Your task to perform on an android device: Open CNN.com Image 0: 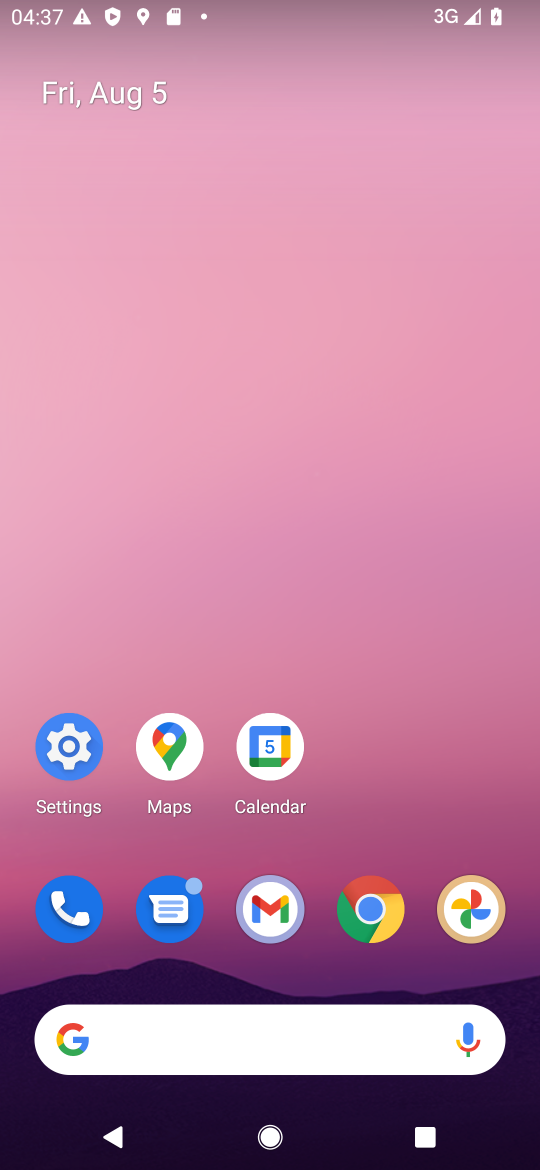
Step 0: click (369, 905)
Your task to perform on an android device: Open CNN.com Image 1: 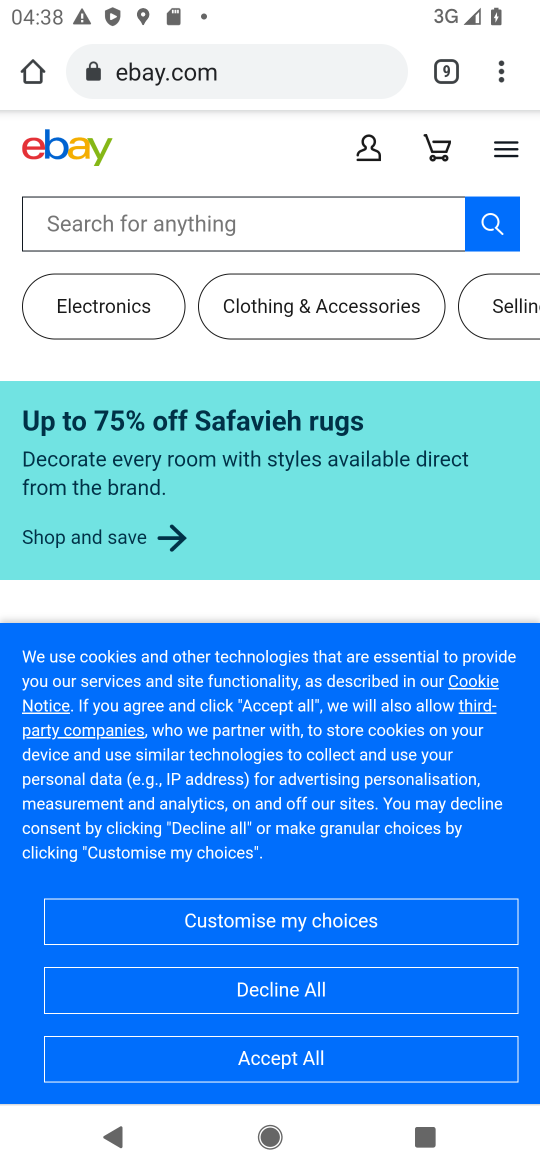
Step 1: click (502, 70)
Your task to perform on an android device: Open CNN.com Image 2: 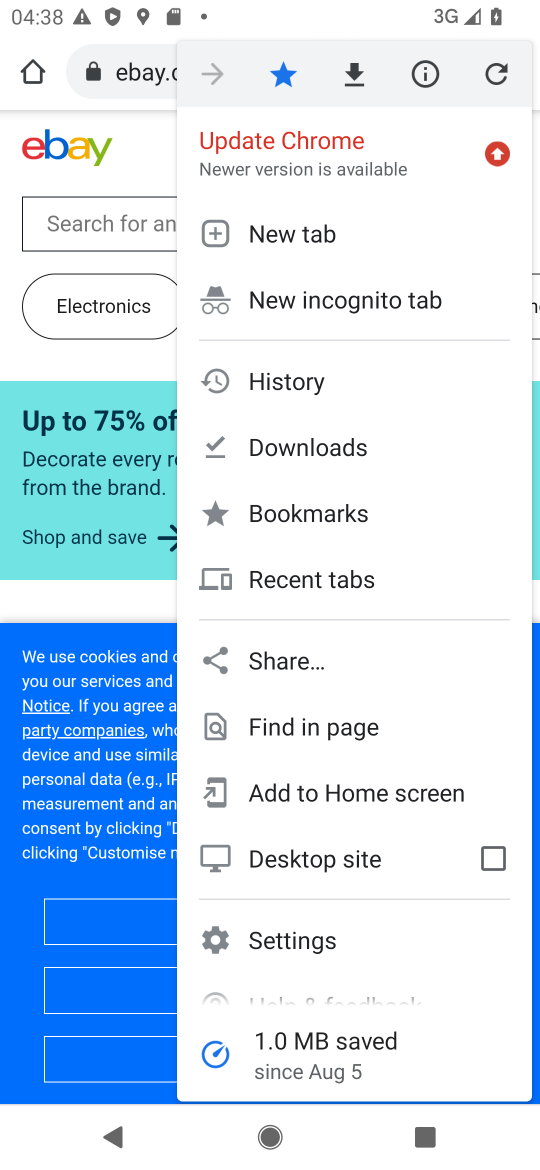
Step 2: click (267, 240)
Your task to perform on an android device: Open CNN.com Image 3: 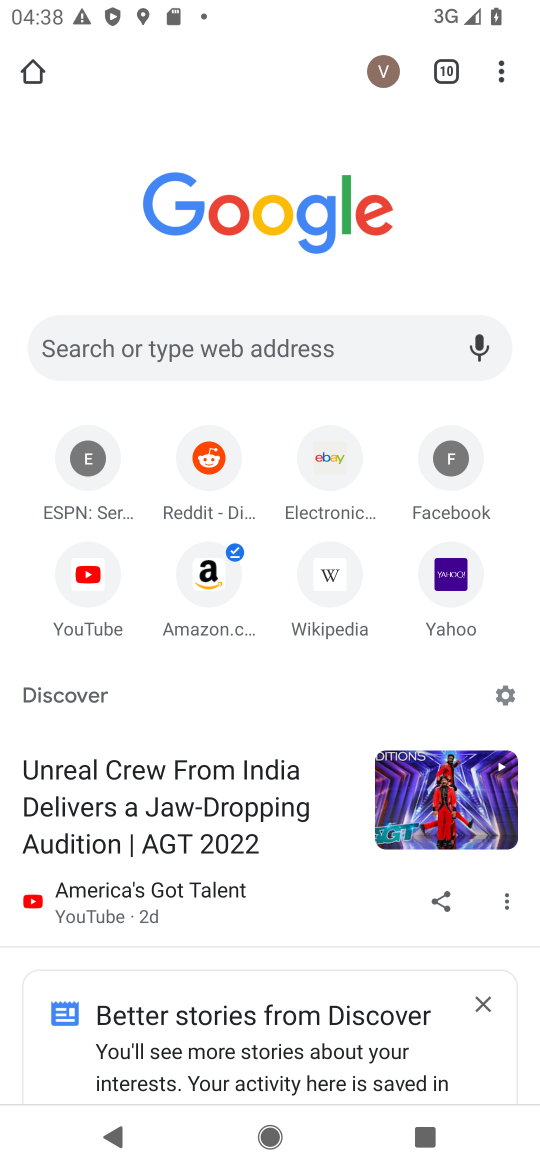
Step 3: click (237, 348)
Your task to perform on an android device: Open CNN.com Image 4: 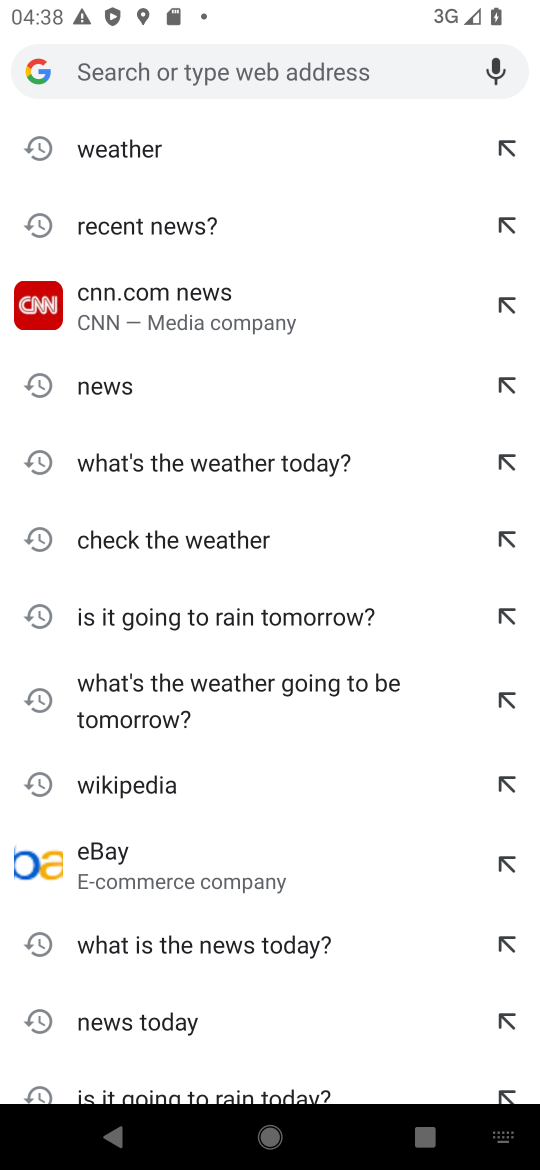
Step 4: click (109, 290)
Your task to perform on an android device: Open CNN.com Image 5: 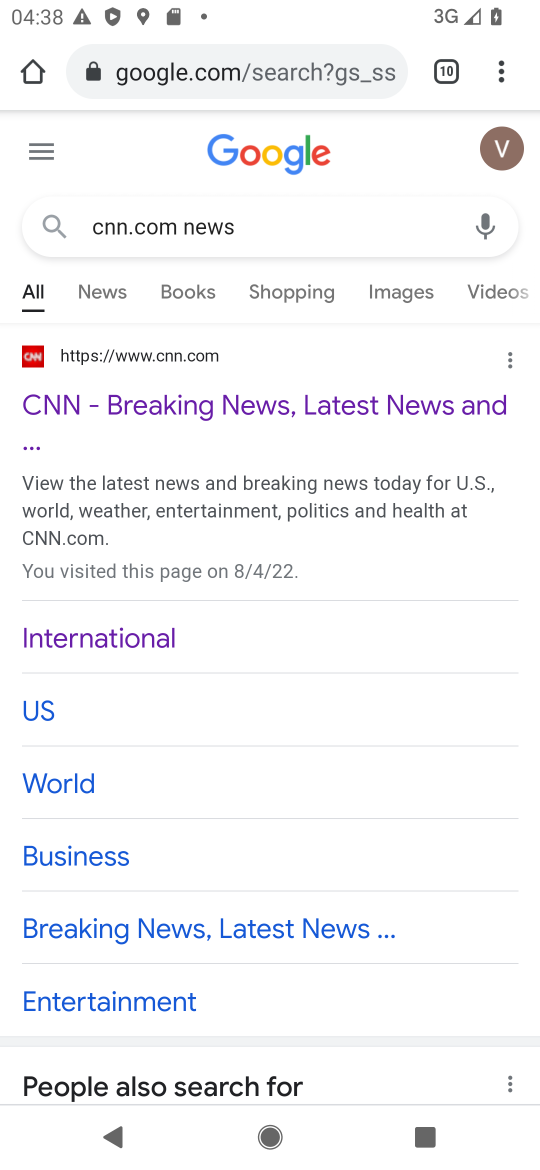
Step 5: click (194, 393)
Your task to perform on an android device: Open CNN.com Image 6: 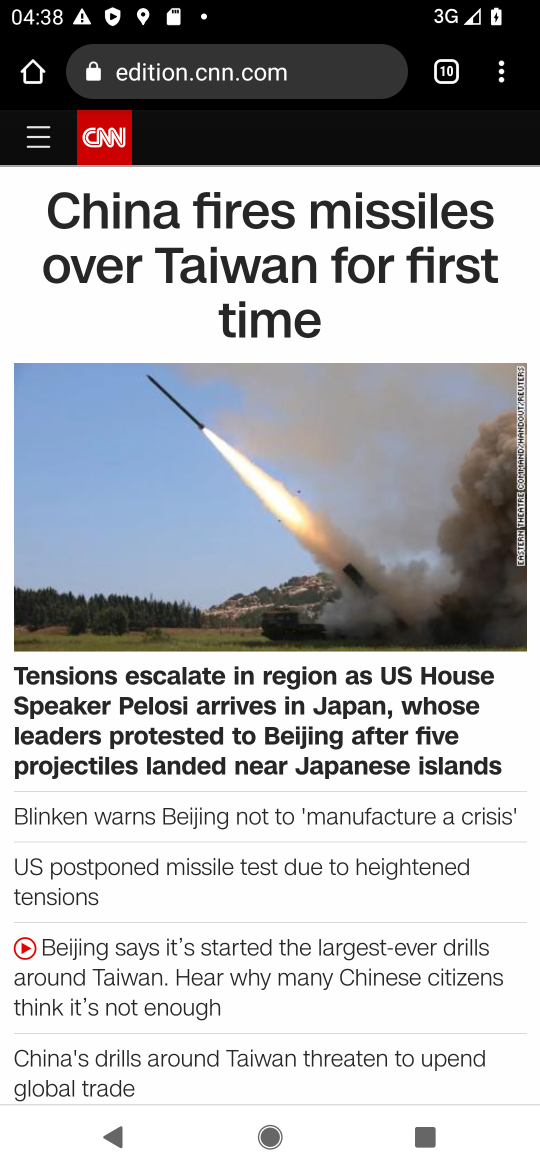
Step 6: task complete